Your task to perform on an android device: add a contact in the contacts app Image 0: 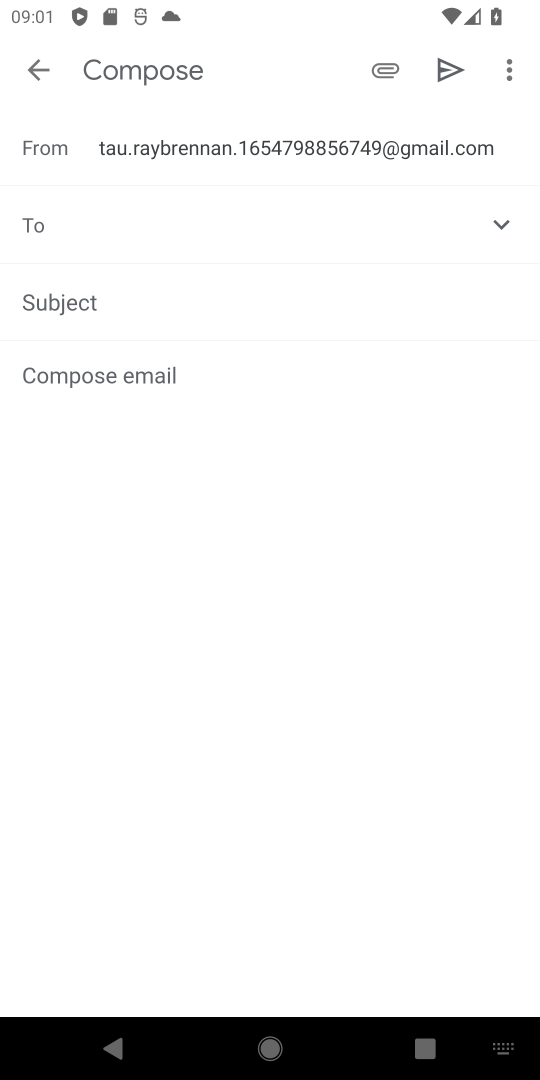
Step 0: press home button
Your task to perform on an android device: add a contact in the contacts app Image 1: 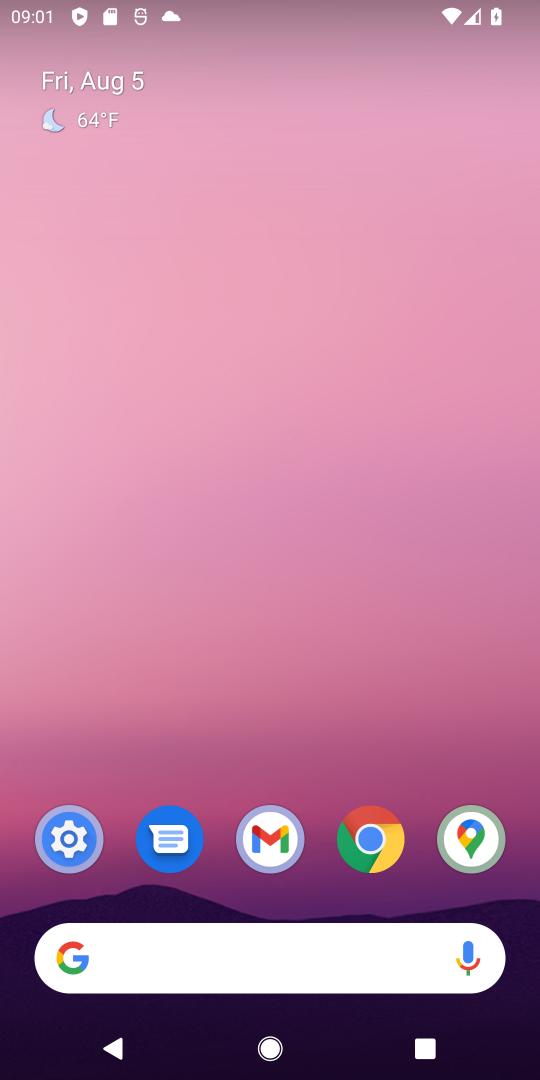
Step 1: drag from (300, 631) to (276, 310)
Your task to perform on an android device: add a contact in the contacts app Image 2: 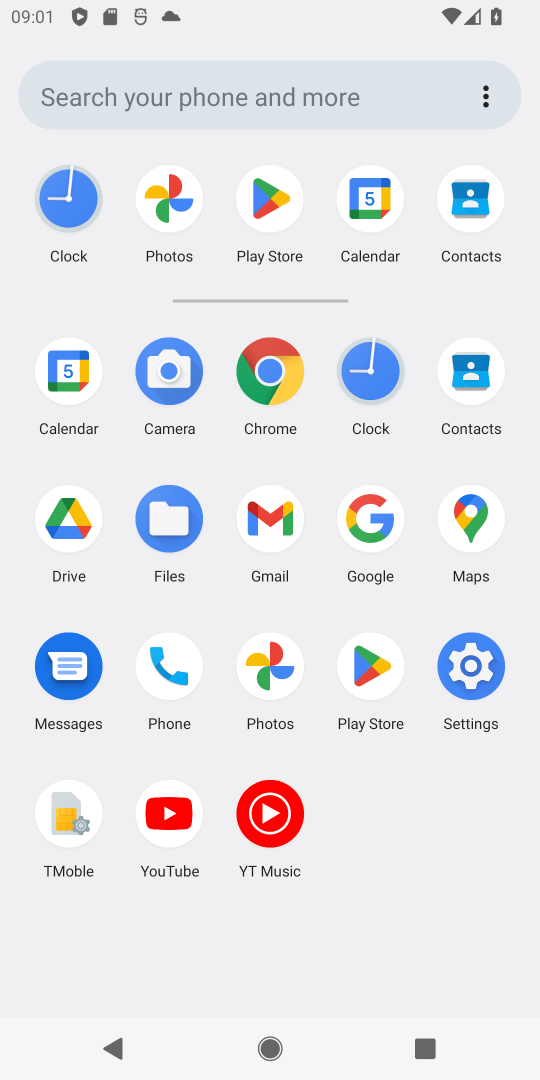
Step 2: click (478, 372)
Your task to perform on an android device: add a contact in the contacts app Image 3: 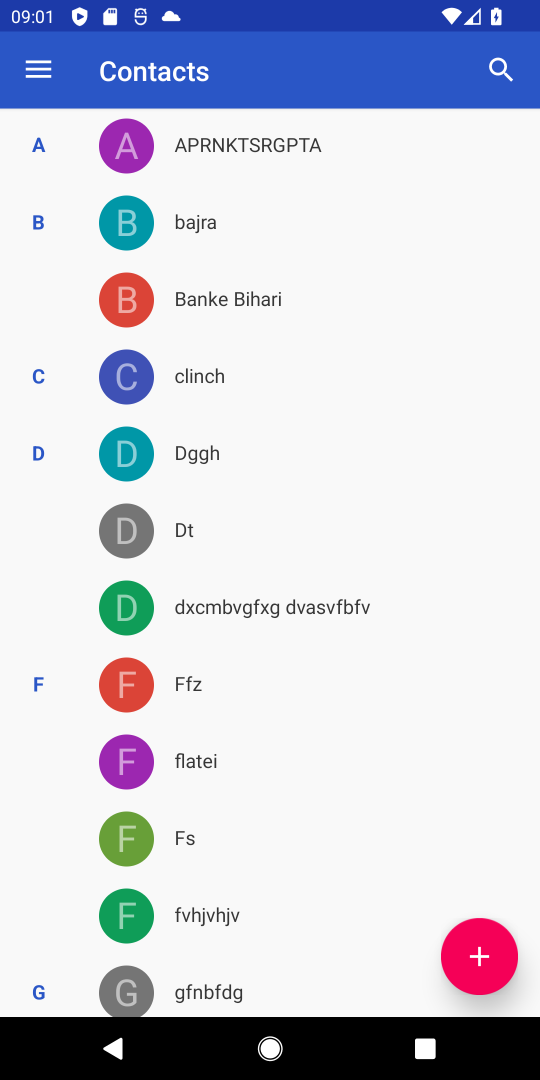
Step 3: click (481, 953)
Your task to perform on an android device: add a contact in the contacts app Image 4: 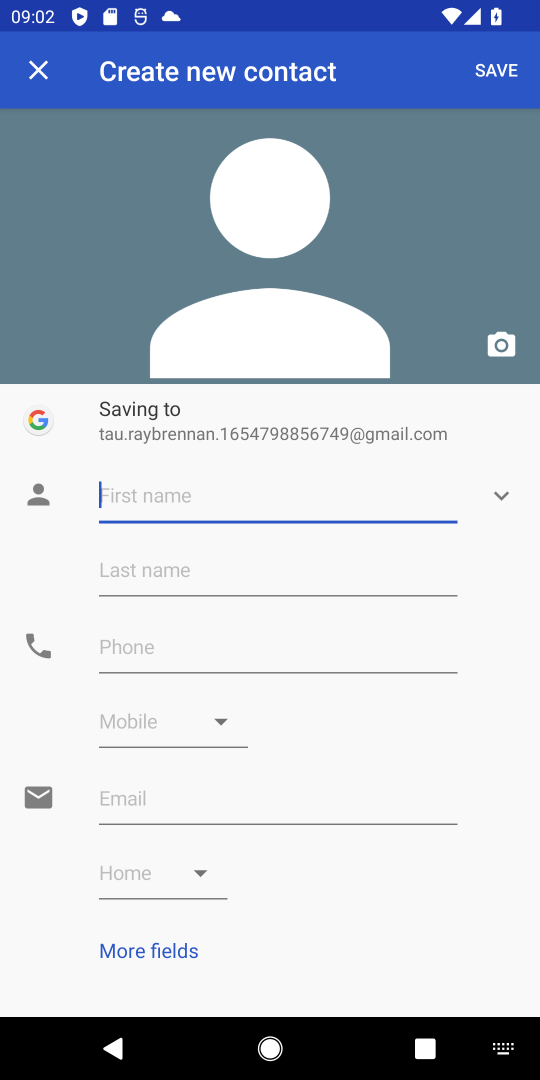
Step 4: type "opti"
Your task to perform on an android device: add a contact in the contacts app Image 5: 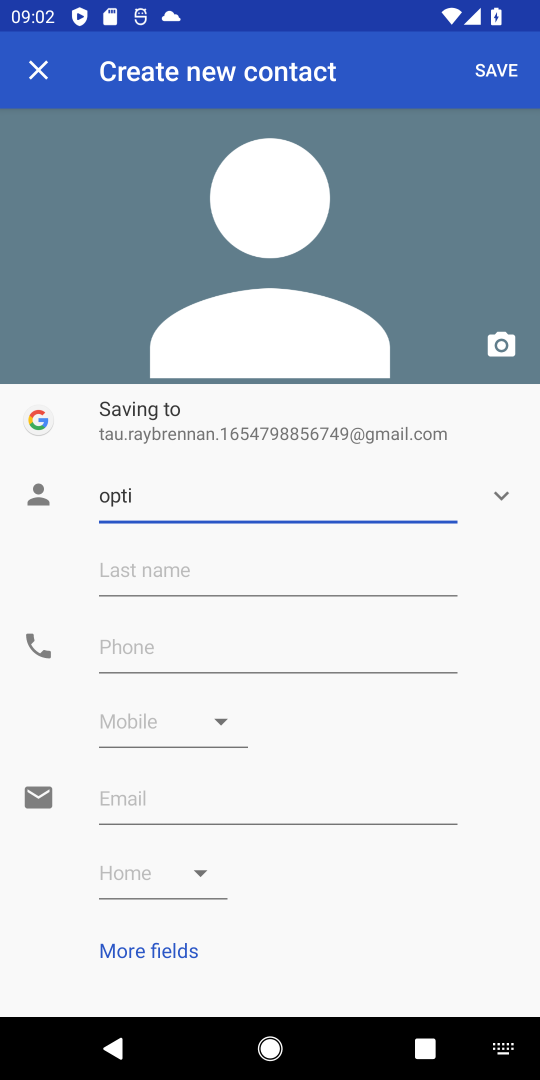
Step 5: click (168, 647)
Your task to perform on an android device: add a contact in the contacts app Image 6: 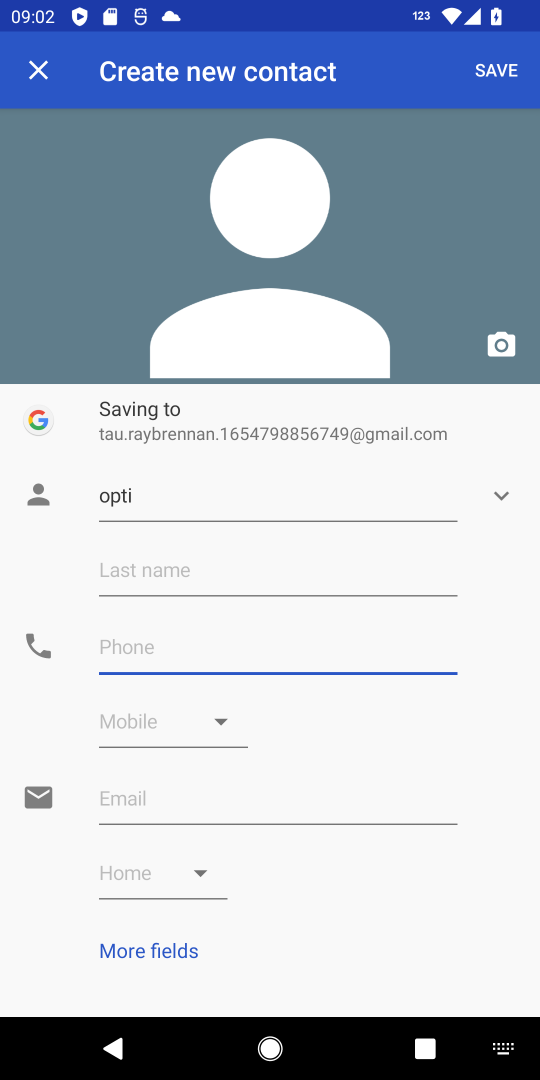
Step 6: type "9898"
Your task to perform on an android device: add a contact in the contacts app Image 7: 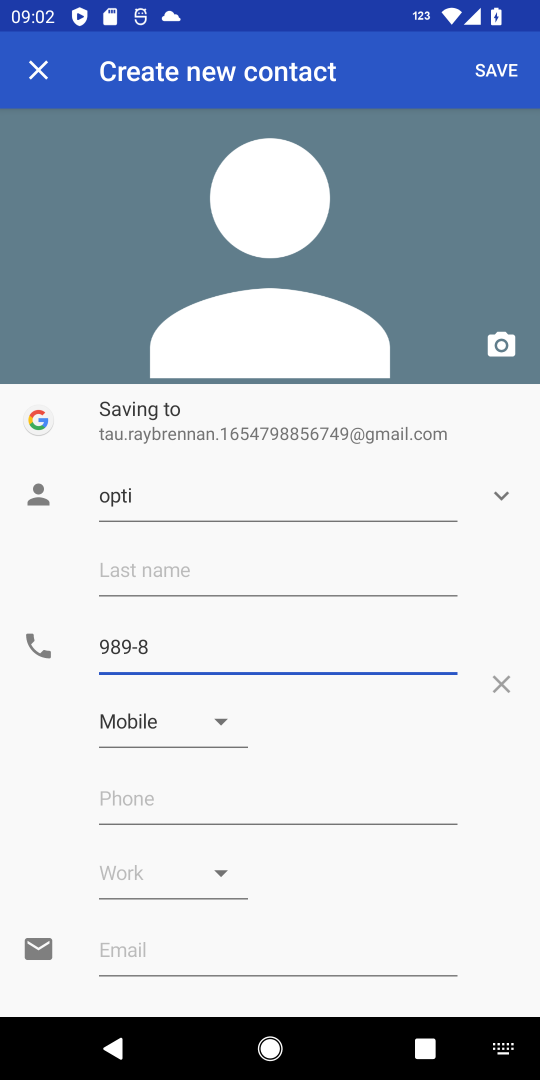
Step 7: click (490, 68)
Your task to perform on an android device: add a contact in the contacts app Image 8: 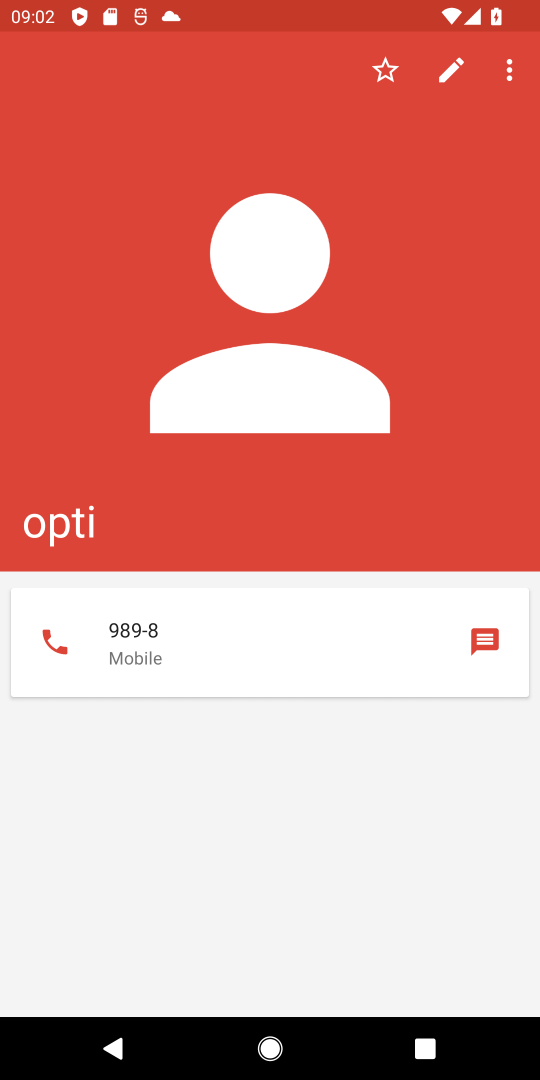
Step 8: task complete